Your task to perform on an android device: allow cookies in the chrome app Image 0: 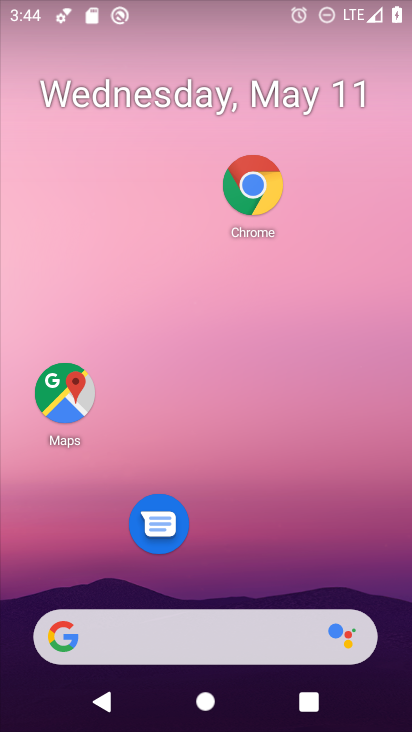
Step 0: click (265, 193)
Your task to perform on an android device: allow cookies in the chrome app Image 1: 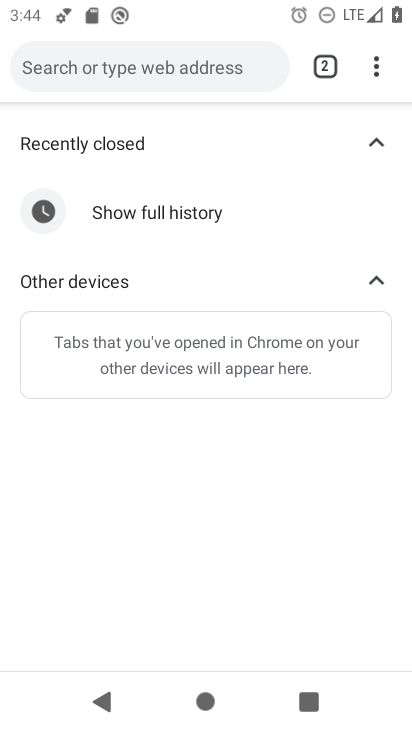
Step 1: click (375, 74)
Your task to perform on an android device: allow cookies in the chrome app Image 2: 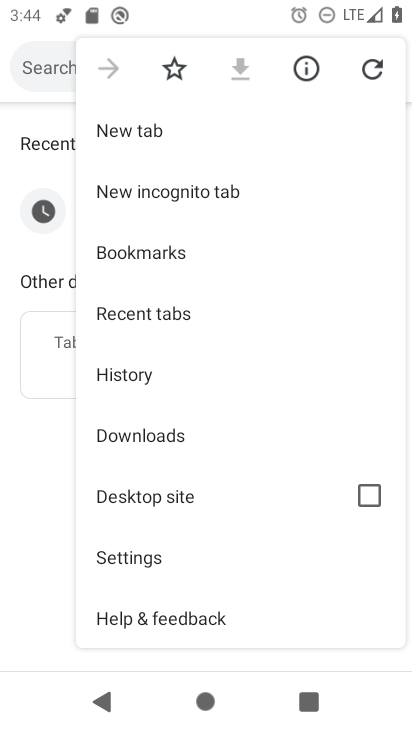
Step 2: click (180, 558)
Your task to perform on an android device: allow cookies in the chrome app Image 3: 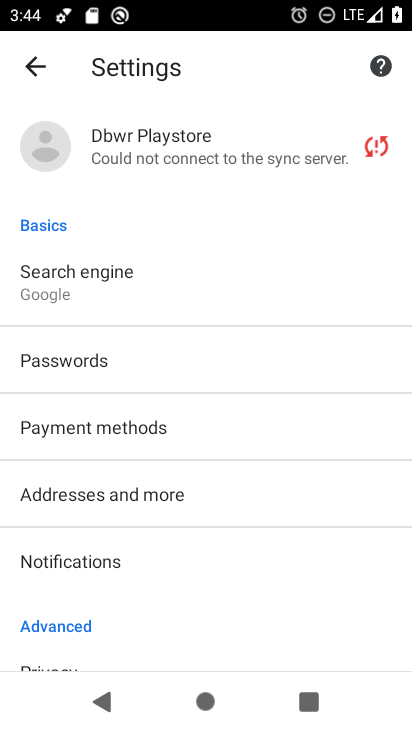
Step 3: drag from (240, 613) to (297, 217)
Your task to perform on an android device: allow cookies in the chrome app Image 4: 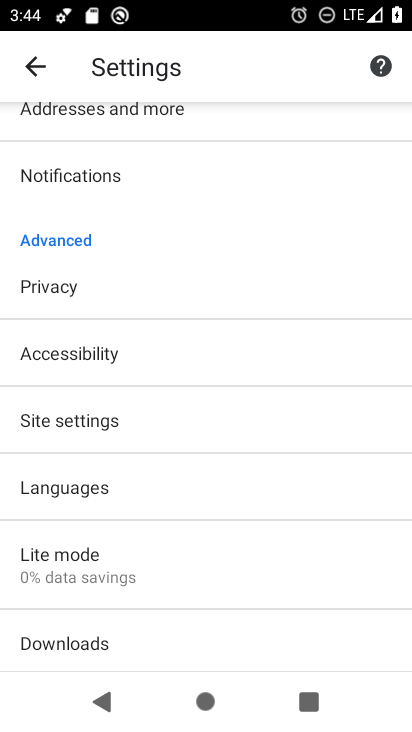
Step 4: click (161, 421)
Your task to perform on an android device: allow cookies in the chrome app Image 5: 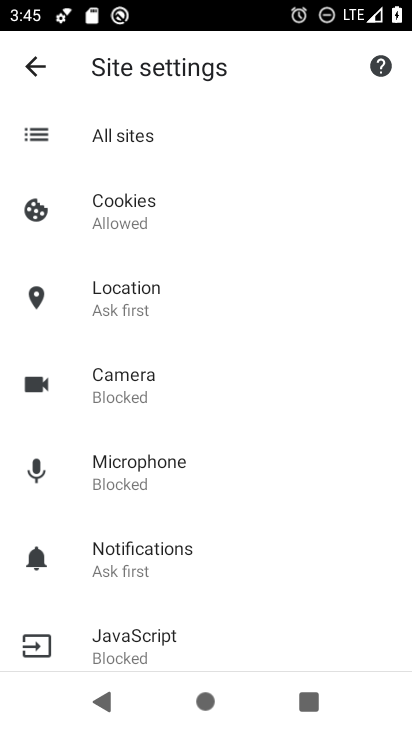
Step 5: click (191, 212)
Your task to perform on an android device: allow cookies in the chrome app Image 6: 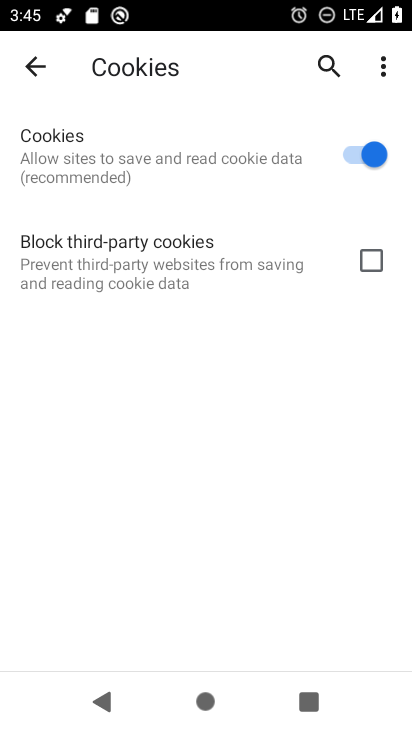
Step 6: task complete